Your task to perform on an android device: Open Google Maps Image 0: 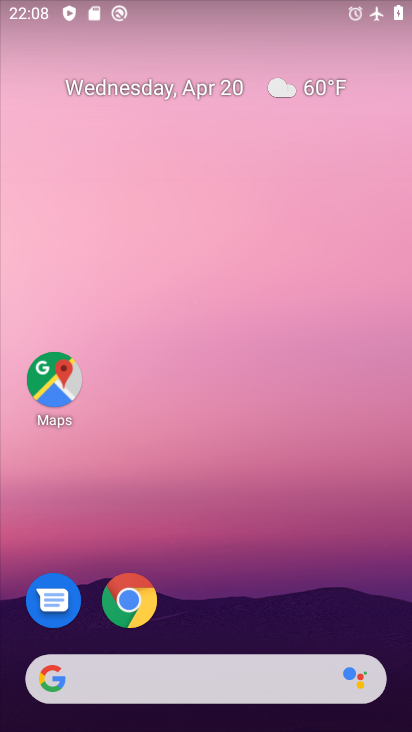
Step 0: click (36, 360)
Your task to perform on an android device: Open Google Maps Image 1: 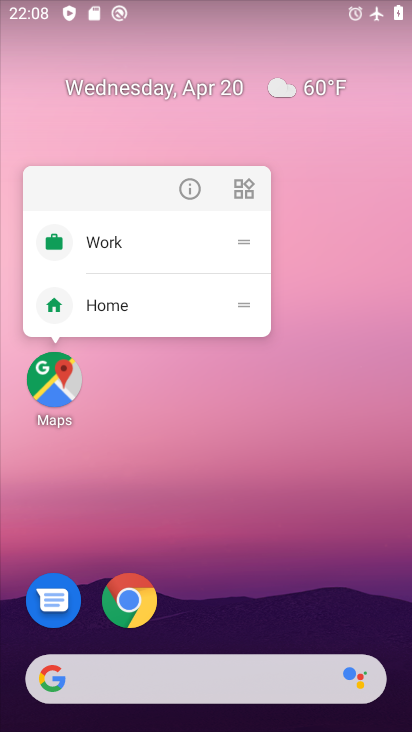
Step 1: click (55, 374)
Your task to perform on an android device: Open Google Maps Image 2: 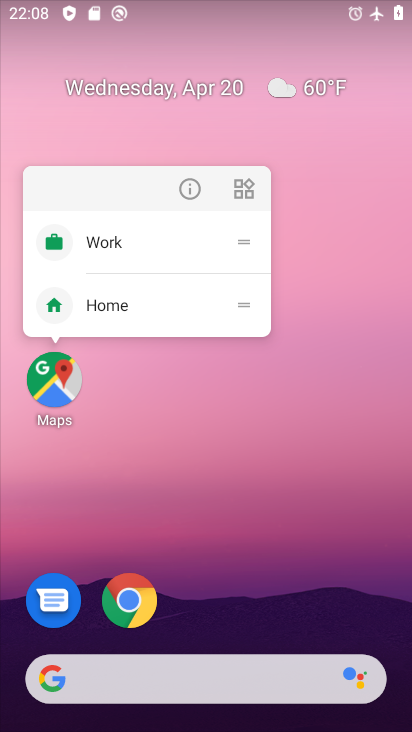
Step 2: click (55, 406)
Your task to perform on an android device: Open Google Maps Image 3: 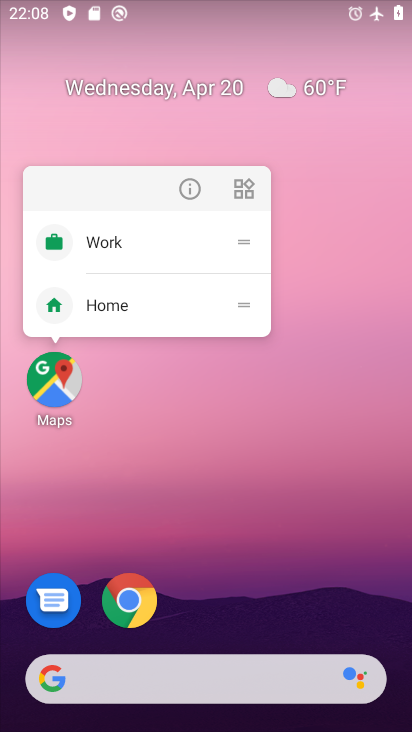
Step 3: click (51, 399)
Your task to perform on an android device: Open Google Maps Image 4: 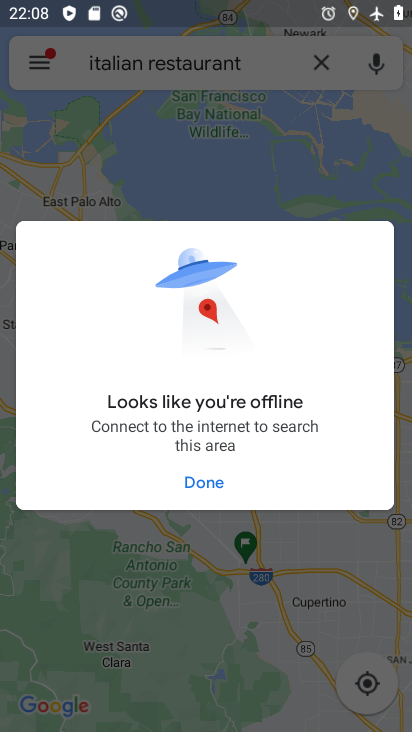
Step 4: click (200, 474)
Your task to perform on an android device: Open Google Maps Image 5: 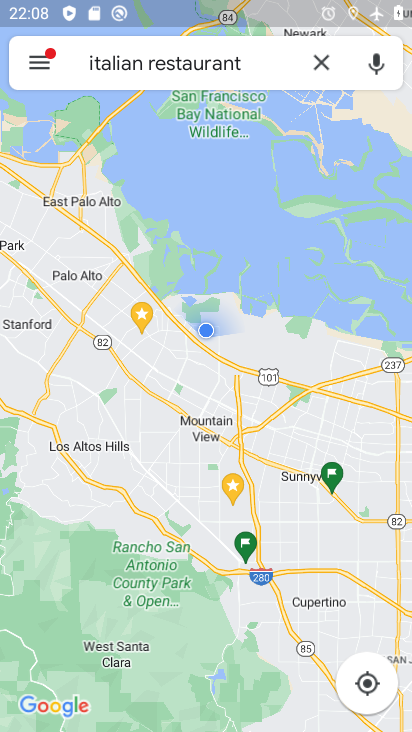
Step 5: task complete